Your task to perform on an android device: open a new tab in the chrome app Image 0: 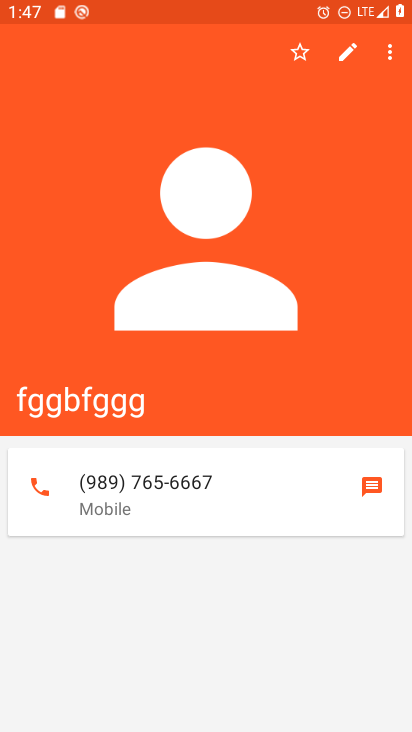
Step 0: press home button
Your task to perform on an android device: open a new tab in the chrome app Image 1: 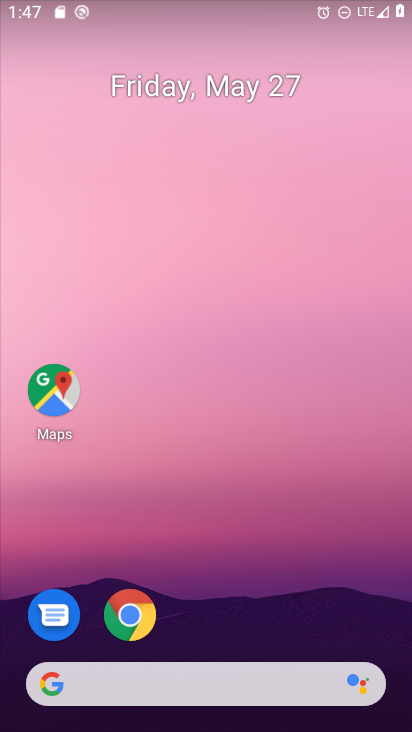
Step 1: drag from (275, 657) to (410, 273)
Your task to perform on an android device: open a new tab in the chrome app Image 2: 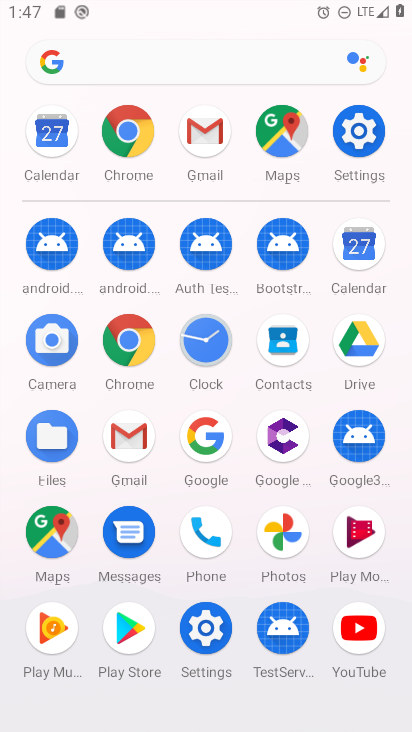
Step 2: click (141, 347)
Your task to perform on an android device: open a new tab in the chrome app Image 3: 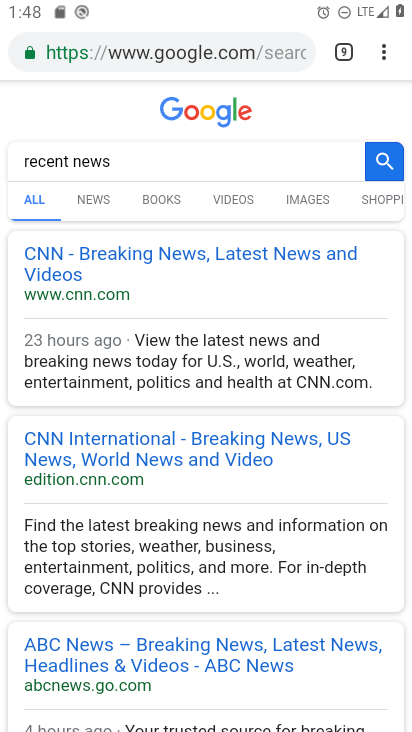
Step 3: press home button
Your task to perform on an android device: open a new tab in the chrome app Image 4: 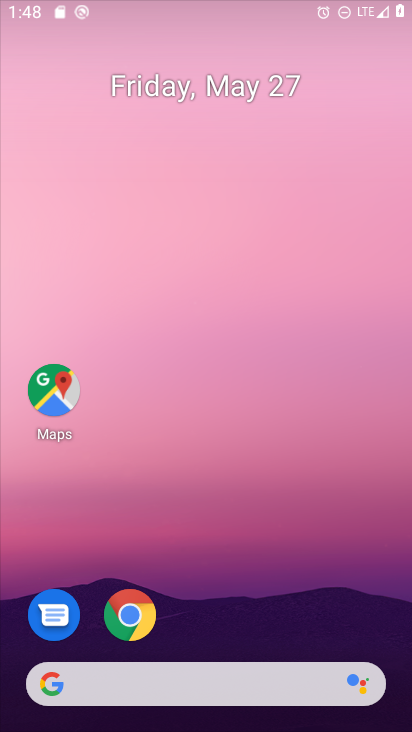
Step 4: drag from (281, 690) to (267, 0)
Your task to perform on an android device: open a new tab in the chrome app Image 5: 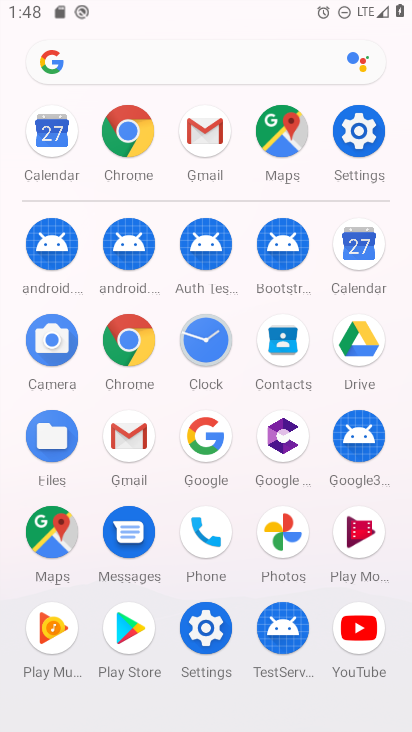
Step 5: click (142, 331)
Your task to perform on an android device: open a new tab in the chrome app Image 6: 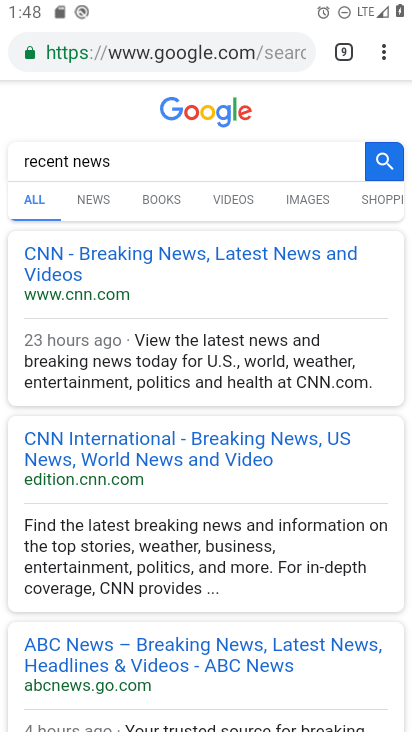
Step 6: task complete